Your task to perform on an android device: Open Chrome and go to the settings page Image 0: 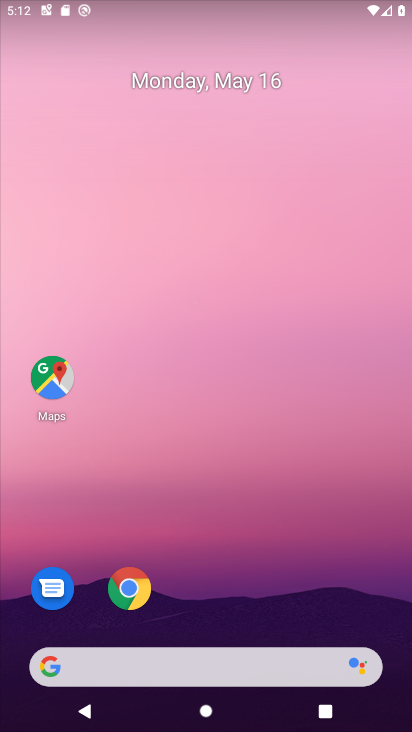
Step 0: click (146, 582)
Your task to perform on an android device: Open Chrome and go to the settings page Image 1: 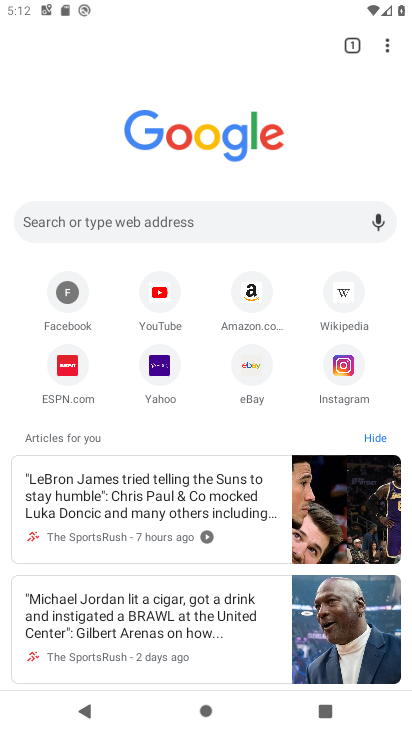
Step 1: click (386, 41)
Your task to perform on an android device: Open Chrome and go to the settings page Image 2: 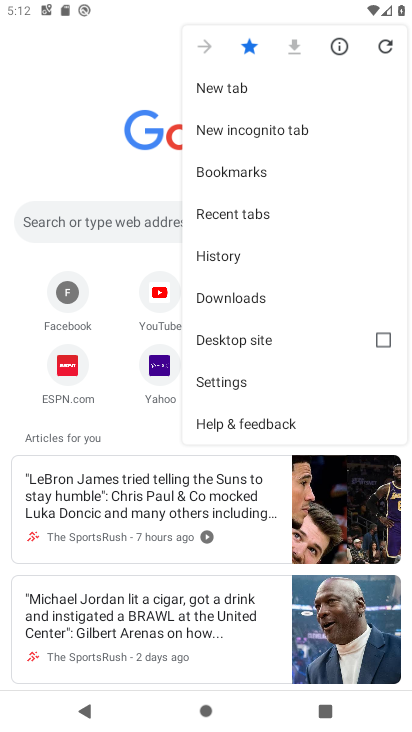
Step 2: click (250, 370)
Your task to perform on an android device: Open Chrome and go to the settings page Image 3: 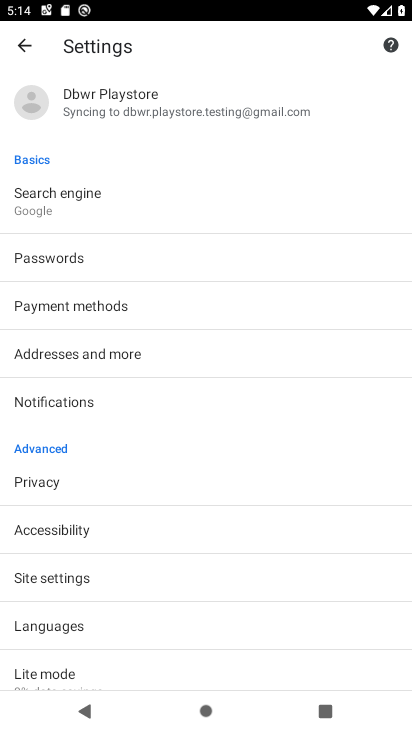
Step 3: task complete